Your task to perform on an android device: What's on my calendar tomorrow? Image 0: 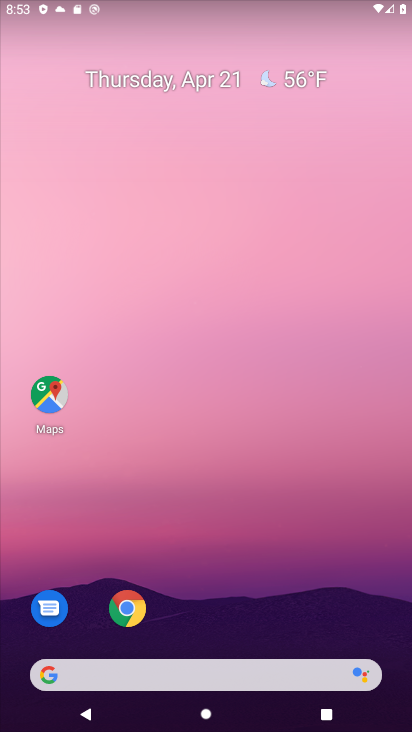
Step 0: drag from (341, 542) to (389, 41)
Your task to perform on an android device: What's on my calendar tomorrow? Image 1: 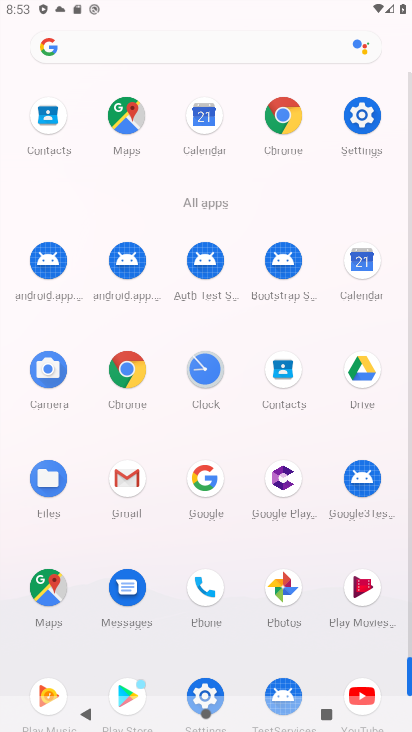
Step 1: click (362, 263)
Your task to perform on an android device: What's on my calendar tomorrow? Image 2: 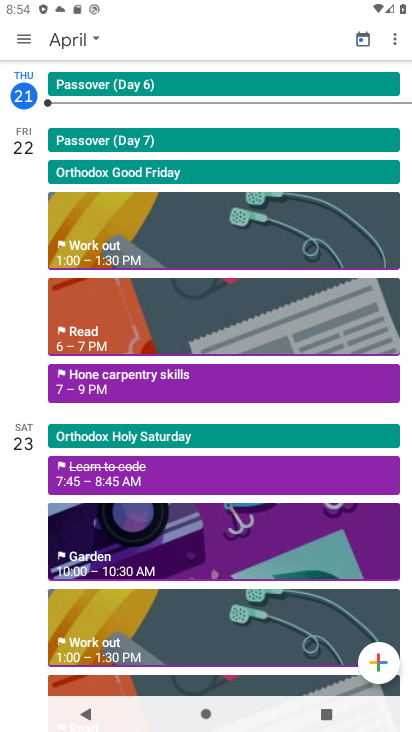
Step 2: task complete